Your task to perform on an android device: open app "Google Play Music" (install if not already installed) Image 0: 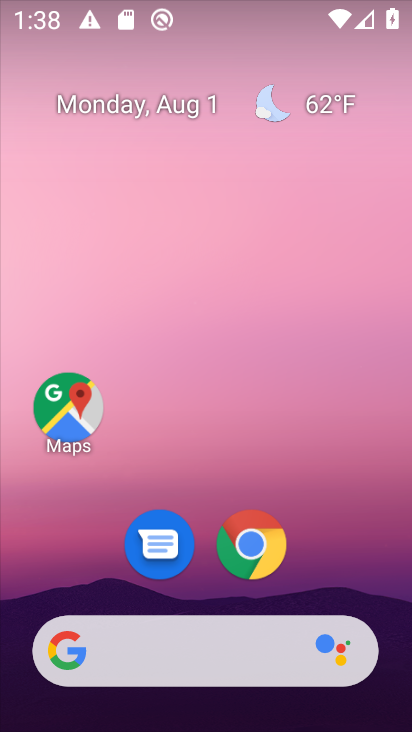
Step 0: drag from (405, 587) to (164, 84)
Your task to perform on an android device: open app "Google Play Music" (install if not already installed) Image 1: 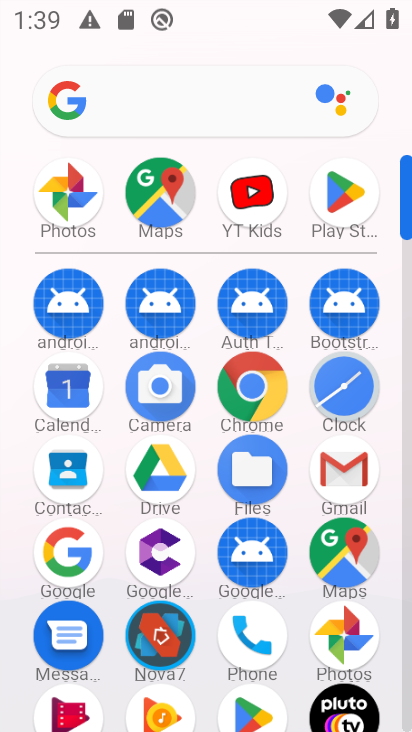
Step 1: click (338, 203)
Your task to perform on an android device: open app "Google Play Music" (install if not already installed) Image 2: 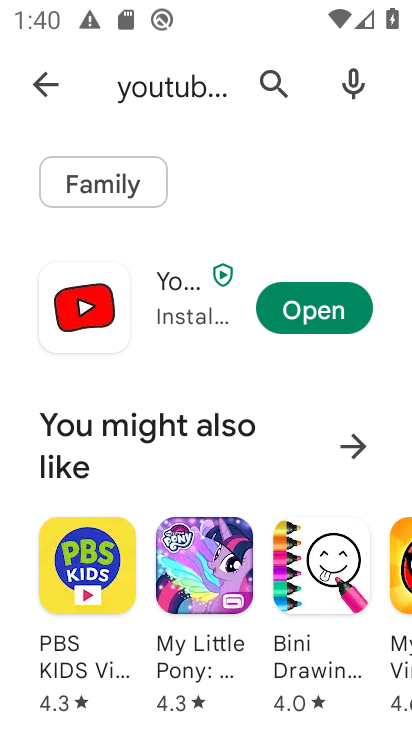
Step 2: press back button
Your task to perform on an android device: open app "Google Play Music" (install if not already installed) Image 3: 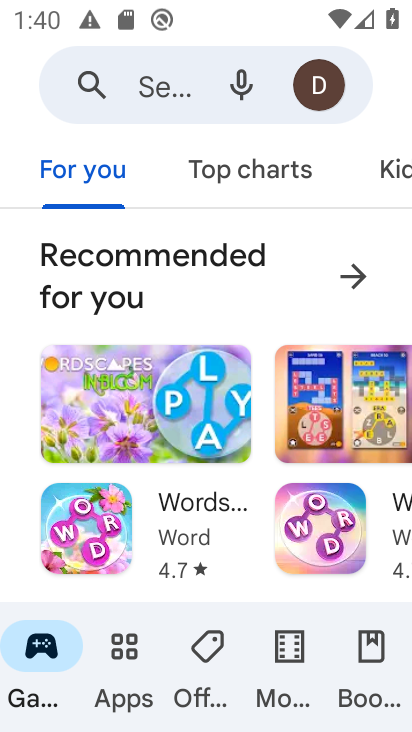
Step 3: click (158, 68)
Your task to perform on an android device: open app "Google Play Music" (install if not already installed) Image 4: 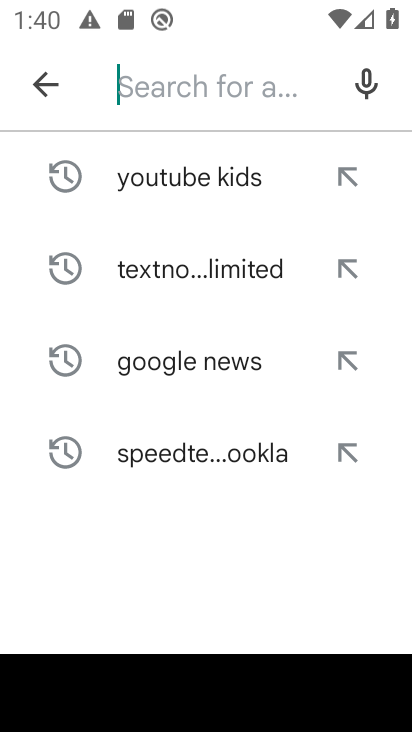
Step 4: type "Google Play Music"
Your task to perform on an android device: open app "Google Play Music" (install if not already installed) Image 5: 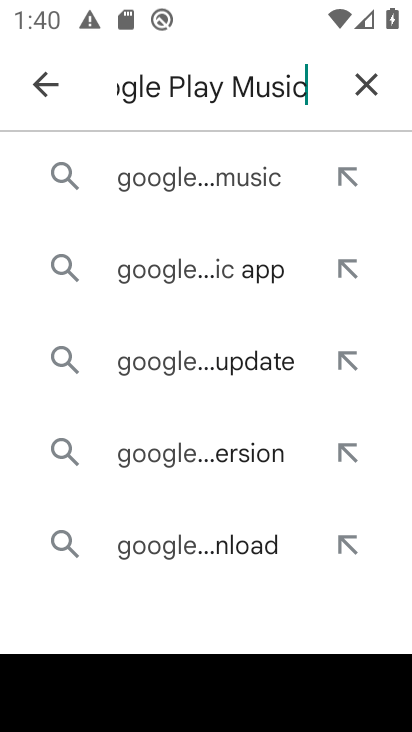
Step 5: click (205, 178)
Your task to perform on an android device: open app "Google Play Music" (install if not already installed) Image 6: 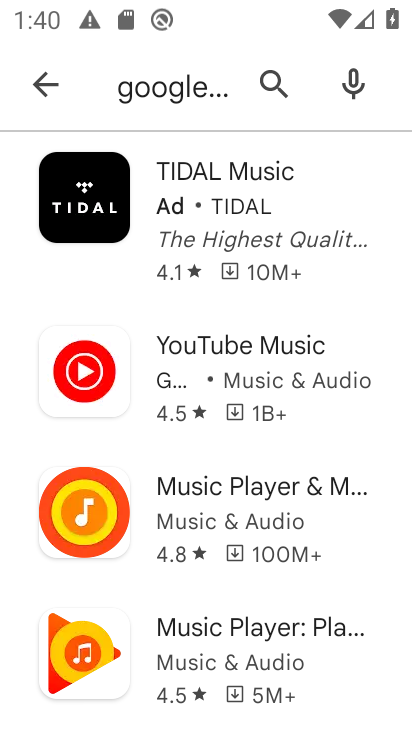
Step 6: task complete